Your task to perform on an android device: open app "LinkedIn" Image 0: 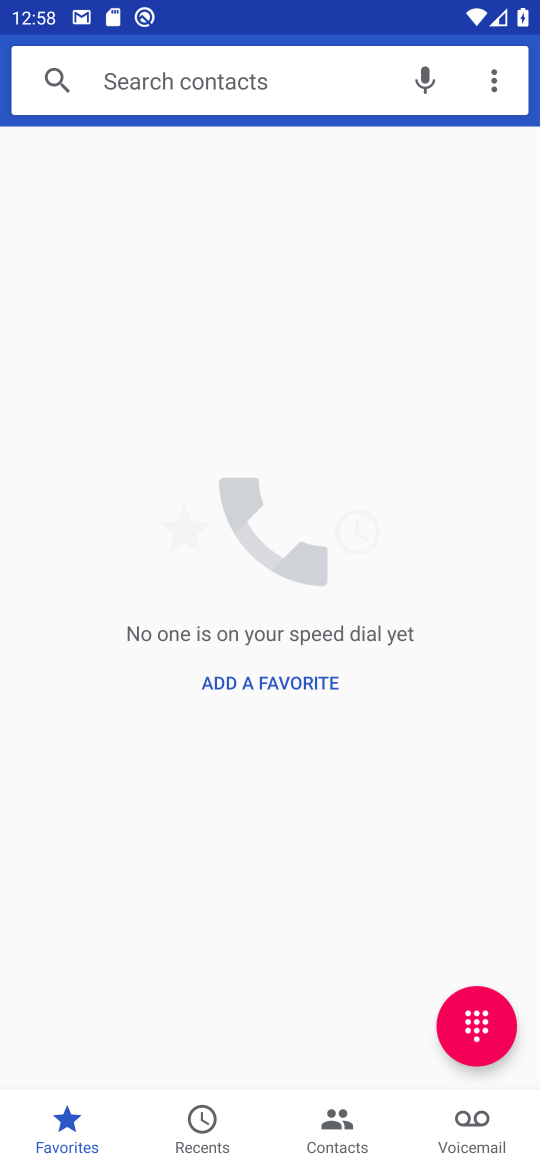
Step 0: press home button
Your task to perform on an android device: open app "LinkedIn" Image 1: 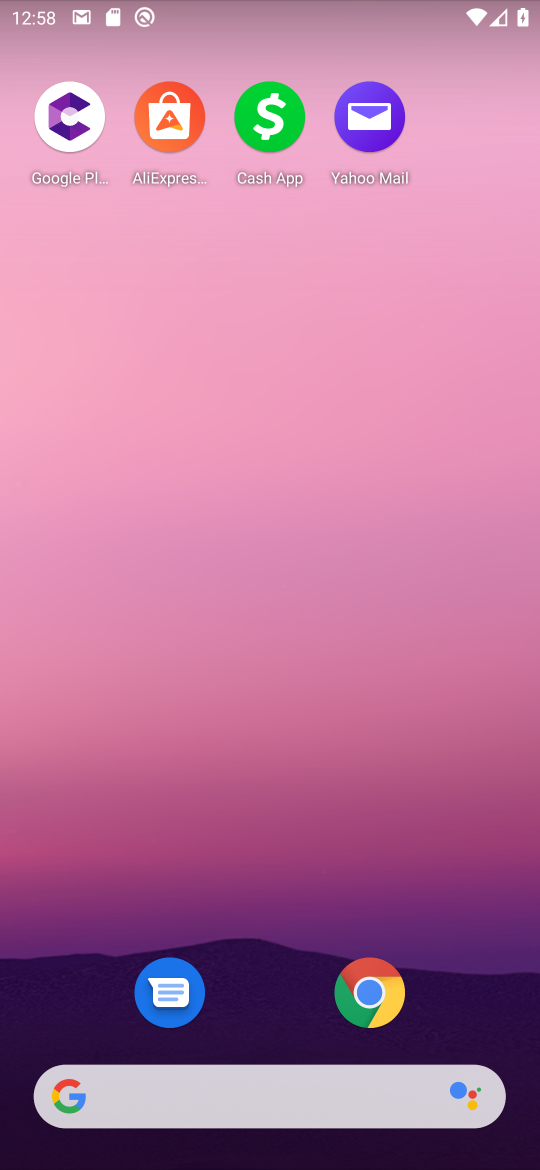
Step 1: drag from (271, 939) to (266, 230)
Your task to perform on an android device: open app "LinkedIn" Image 2: 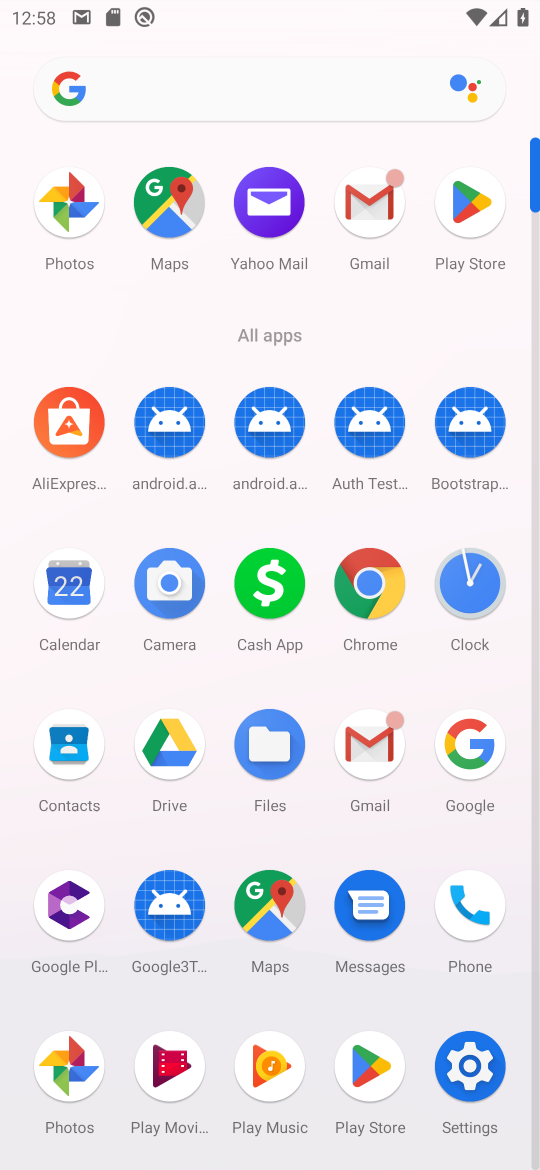
Step 2: click (464, 201)
Your task to perform on an android device: open app "LinkedIn" Image 3: 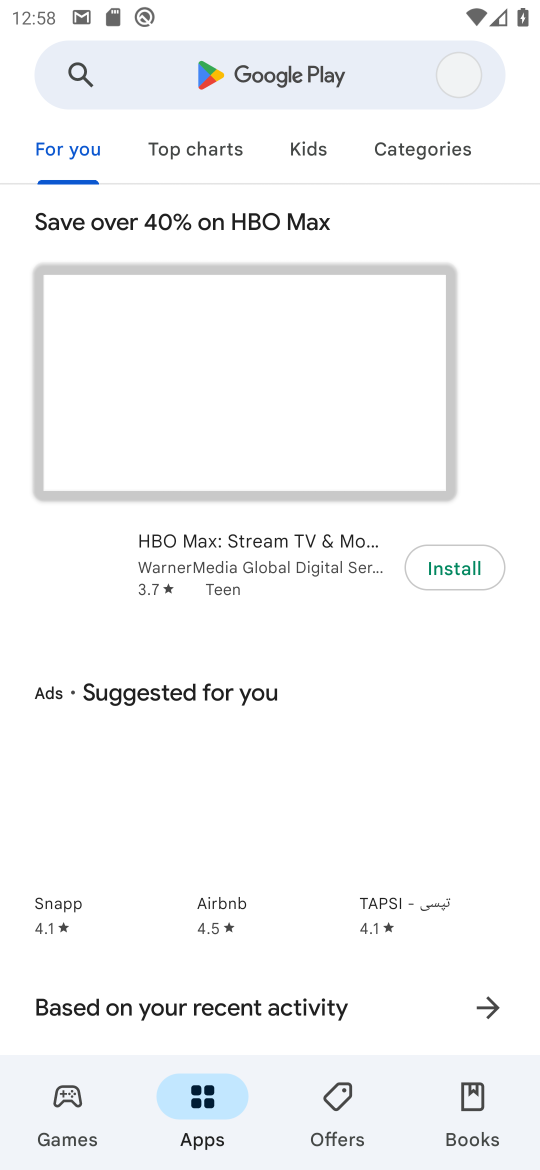
Step 3: click (248, 73)
Your task to perform on an android device: open app "LinkedIn" Image 4: 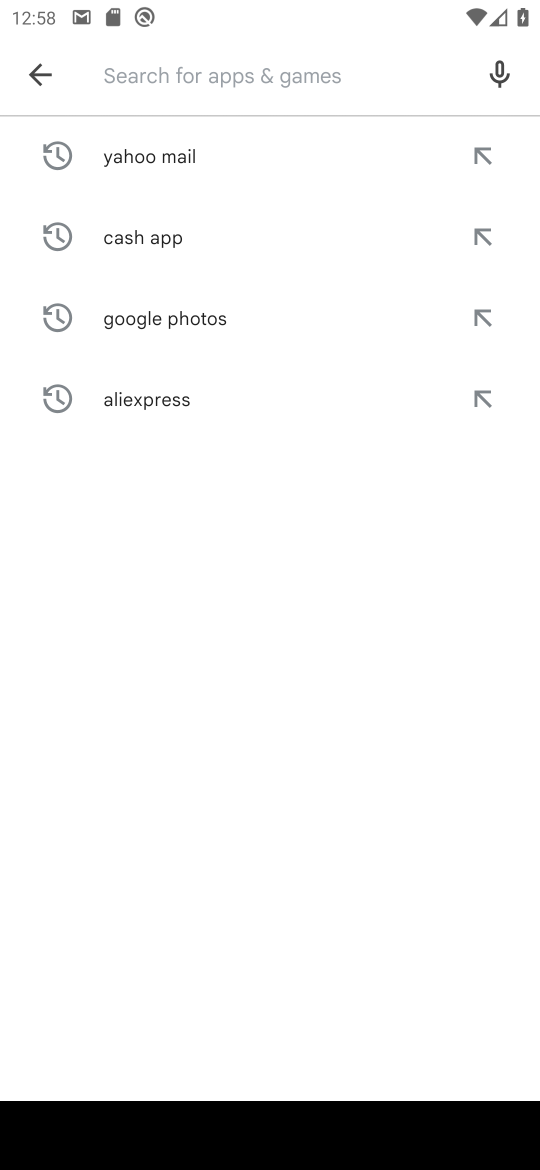
Step 4: type "LinkedIn"
Your task to perform on an android device: open app "LinkedIn" Image 5: 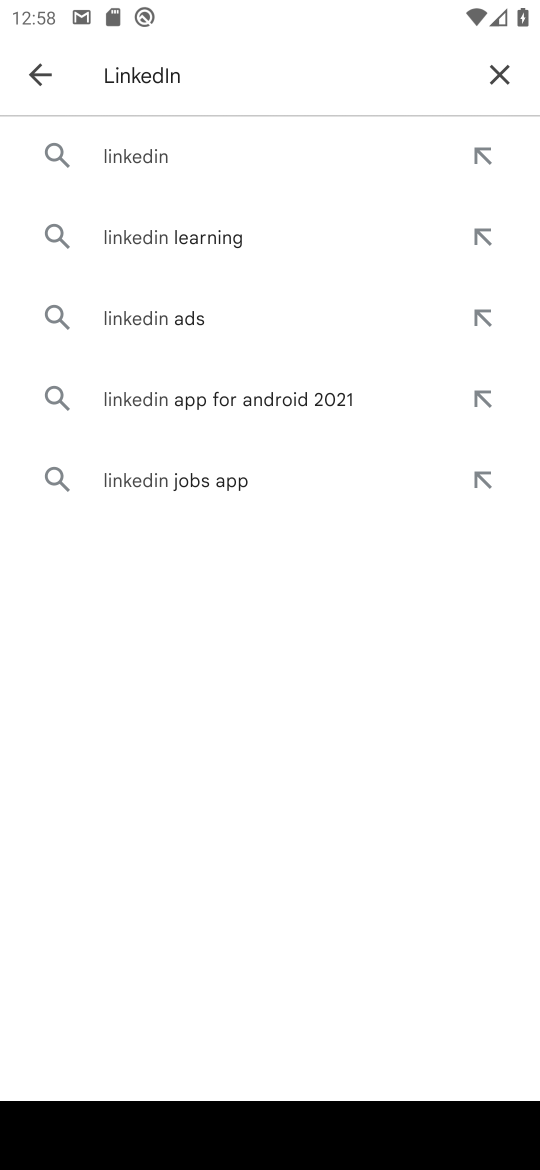
Step 5: click (161, 150)
Your task to perform on an android device: open app "LinkedIn" Image 6: 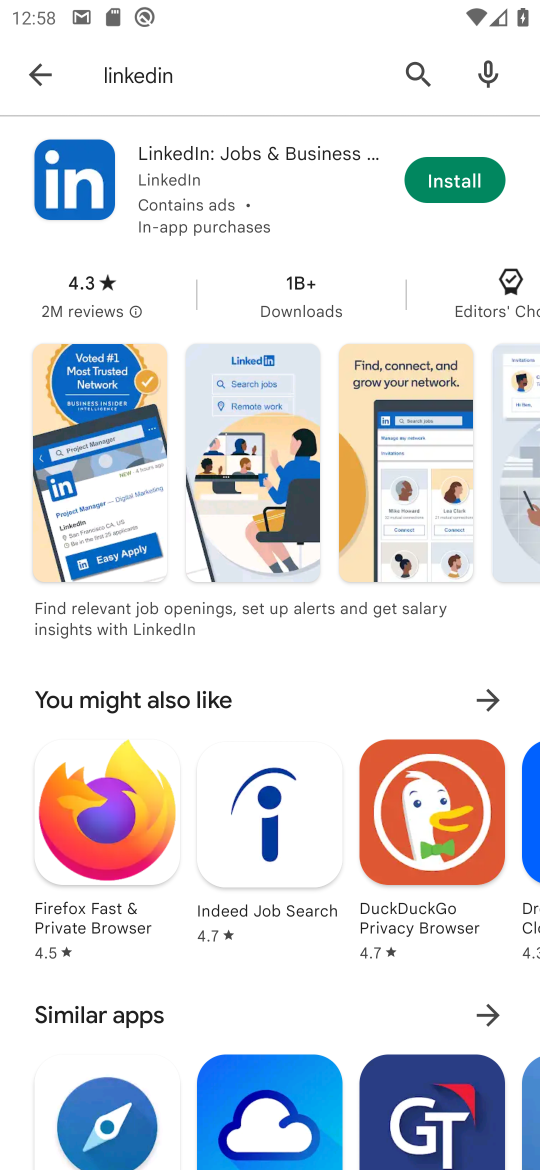
Step 6: click (468, 182)
Your task to perform on an android device: open app "LinkedIn" Image 7: 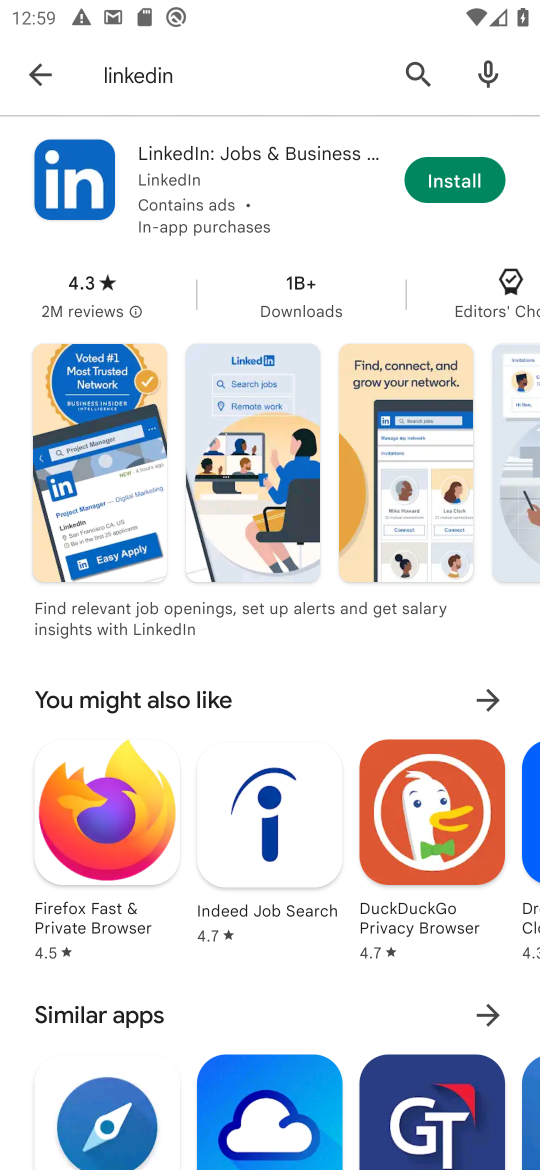
Step 7: task complete